Your task to perform on an android device: uninstall "Google Drive" Image 0: 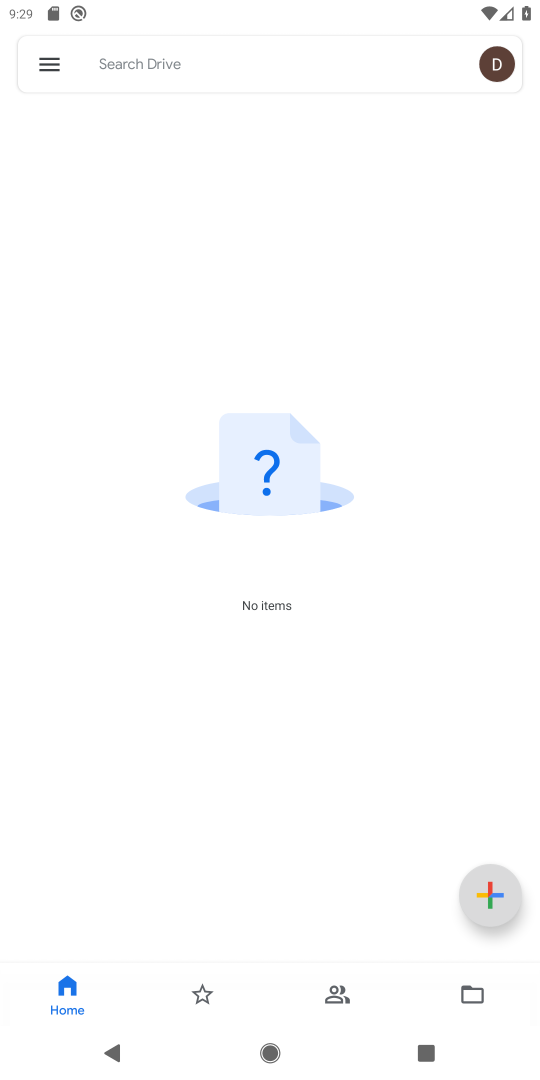
Step 0: press home button
Your task to perform on an android device: uninstall "Google Drive" Image 1: 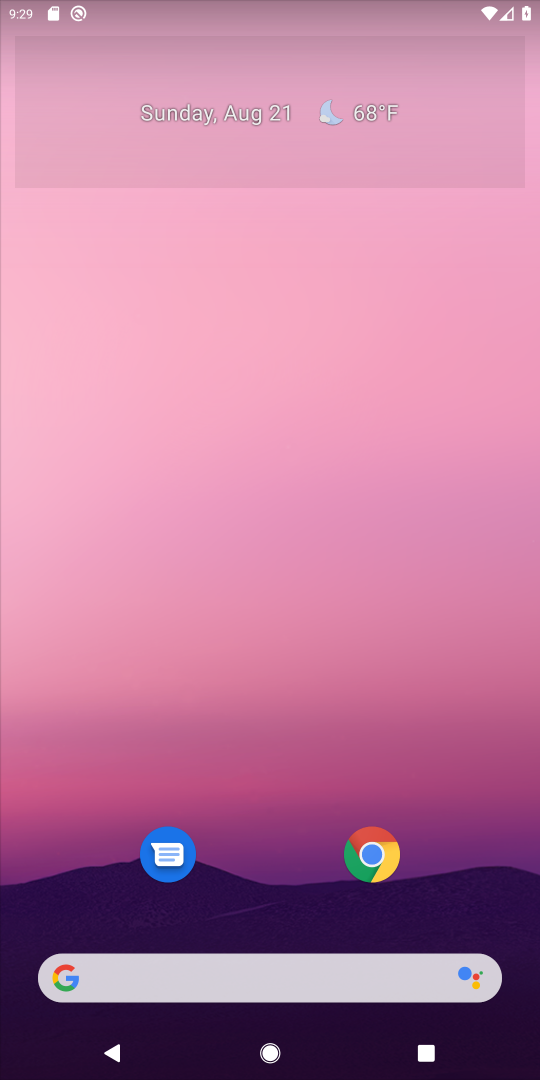
Step 1: drag from (273, 954) to (308, 89)
Your task to perform on an android device: uninstall "Google Drive" Image 2: 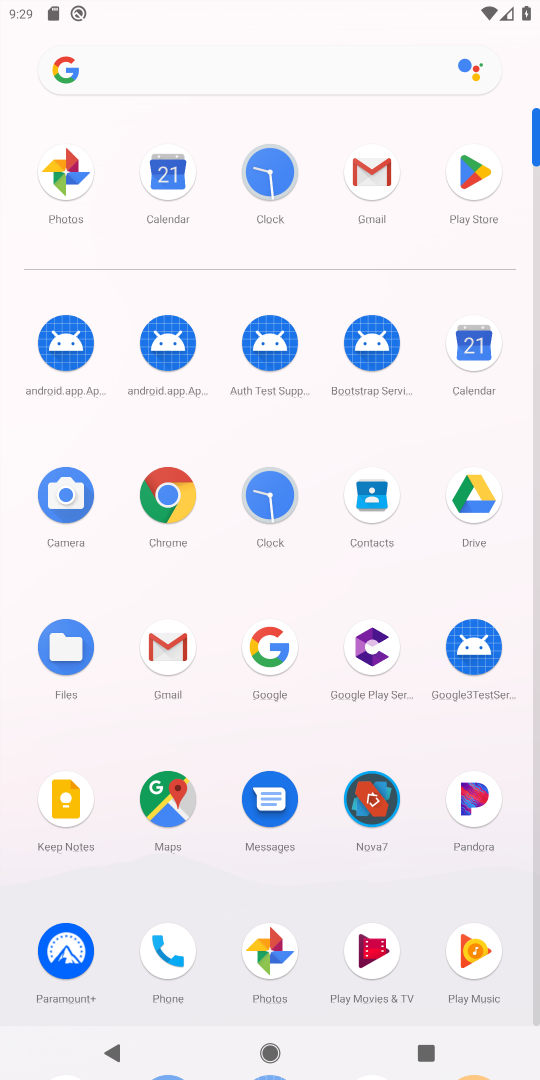
Step 2: click (461, 153)
Your task to perform on an android device: uninstall "Google Drive" Image 3: 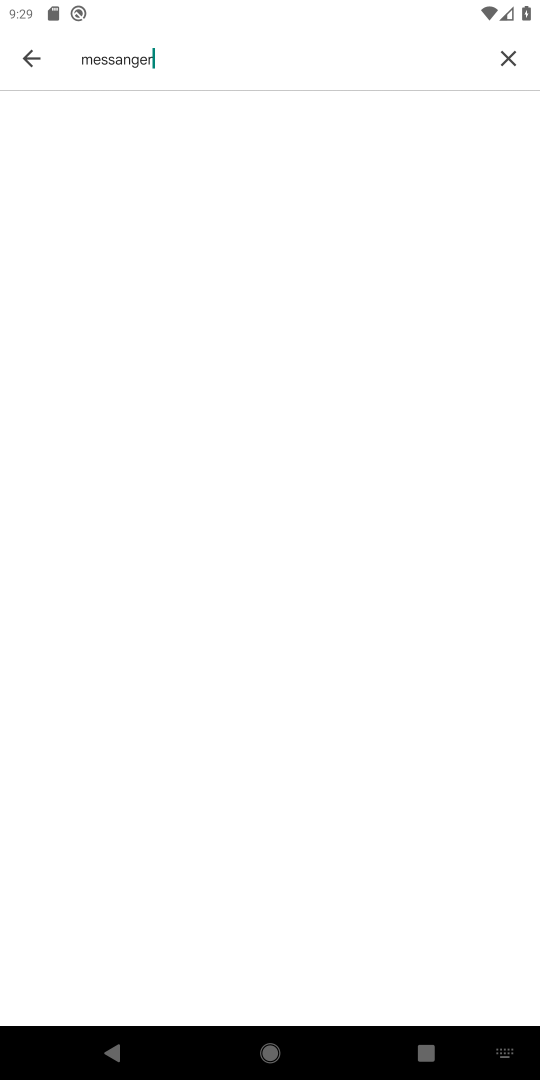
Step 3: click (495, 80)
Your task to perform on an android device: uninstall "Google Drive" Image 4: 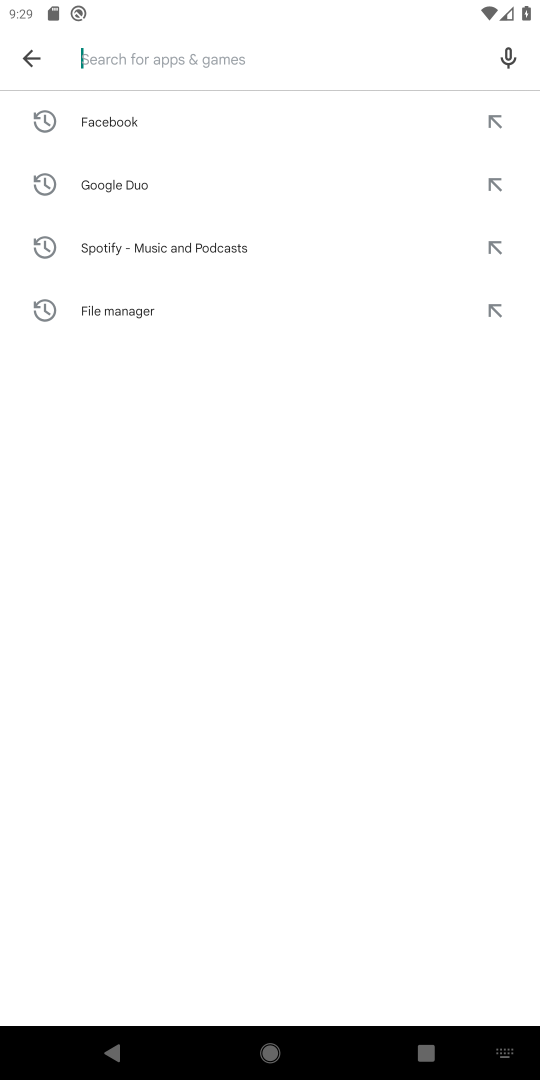
Step 4: type "google drive"
Your task to perform on an android device: uninstall "Google Drive" Image 5: 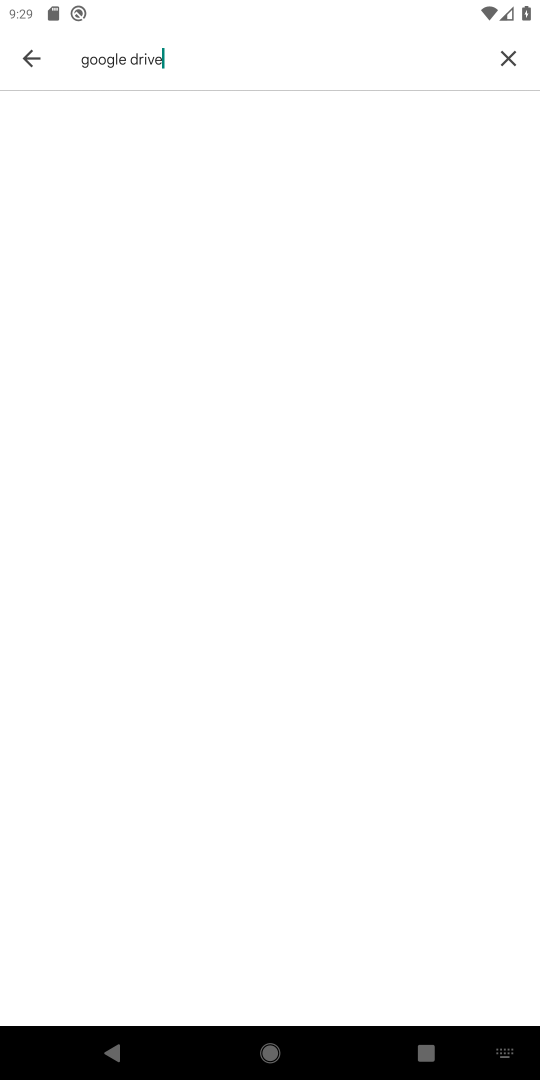
Step 5: task complete